Your task to perform on an android device: delete location history Image 0: 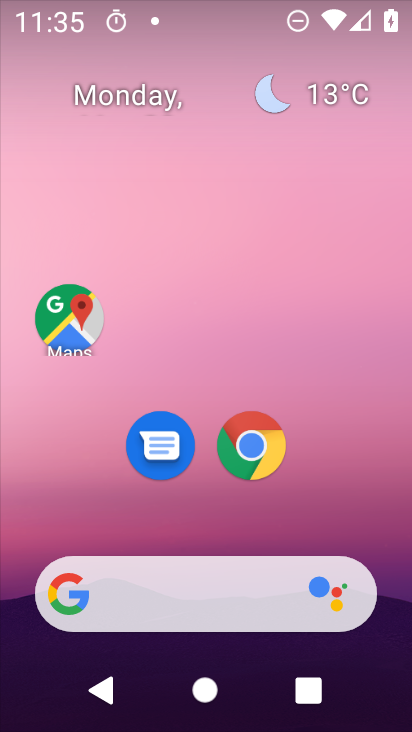
Step 0: drag from (183, 531) to (251, 53)
Your task to perform on an android device: delete location history Image 1: 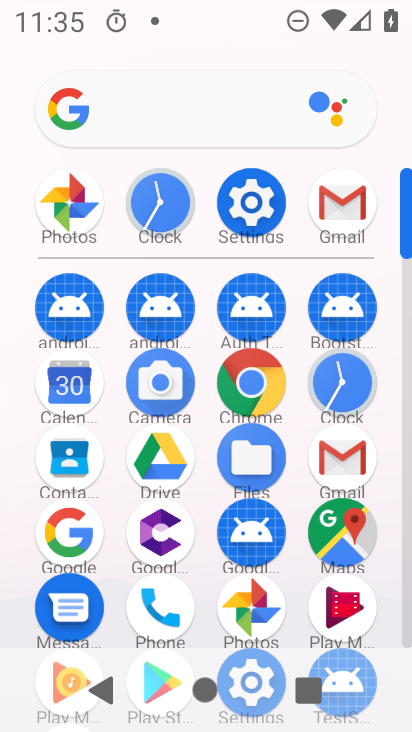
Step 1: click (332, 503)
Your task to perform on an android device: delete location history Image 2: 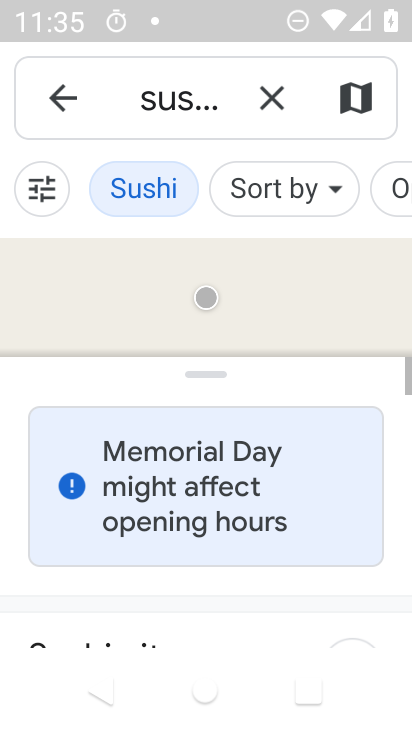
Step 2: click (61, 94)
Your task to perform on an android device: delete location history Image 3: 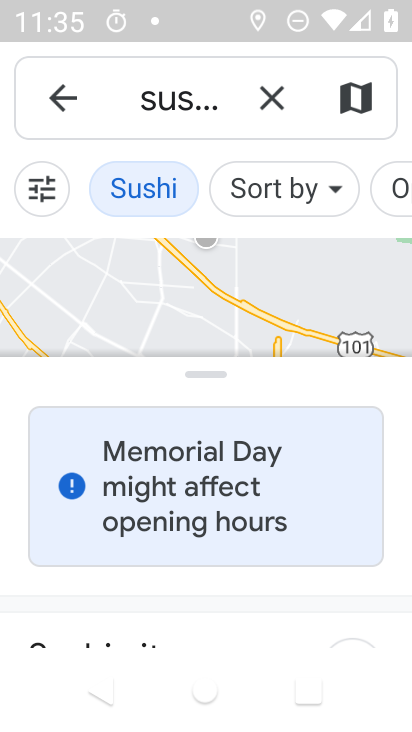
Step 3: click (60, 96)
Your task to perform on an android device: delete location history Image 4: 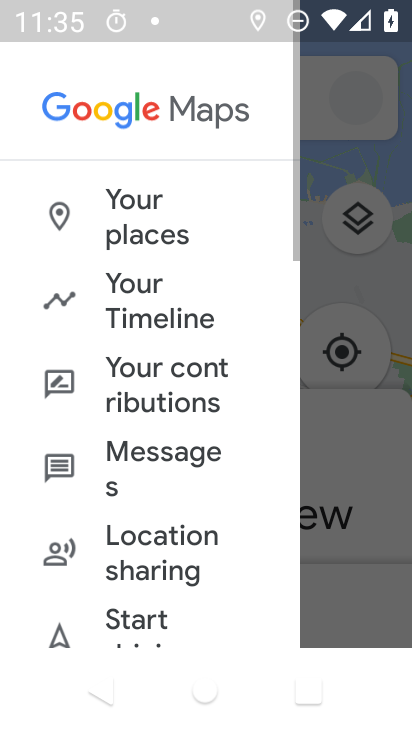
Step 4: click (56, 90)
Your task to perform on an android device: delete location history Image 5: 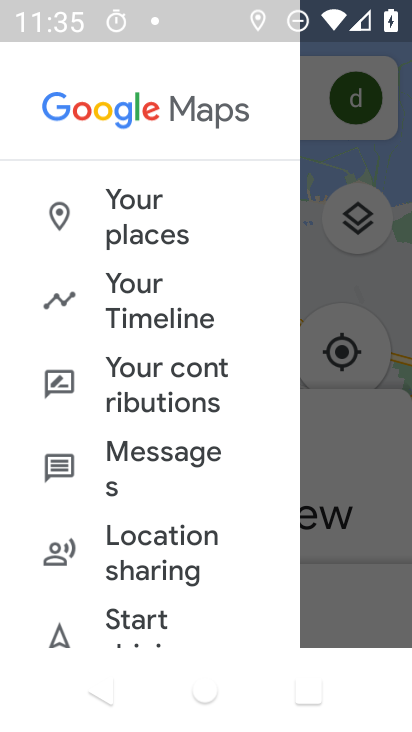
Step 5: click (137, 321)
Your task to perform on an android device: delete location history Image 6: 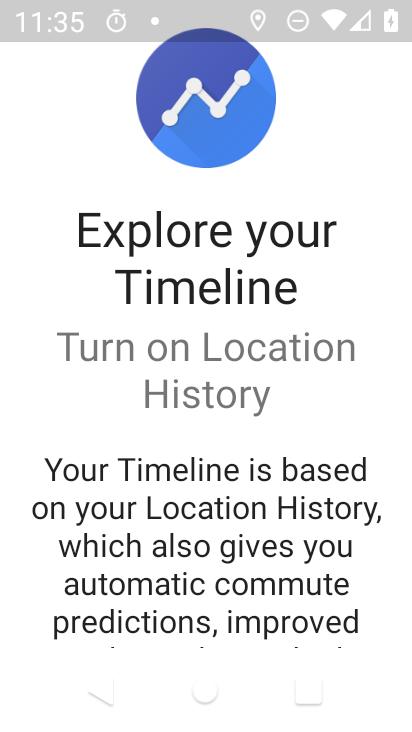
Step 6: drag from (200, 571) to (317, 29)
Your task to perform on an android device: delete location history Image 7: 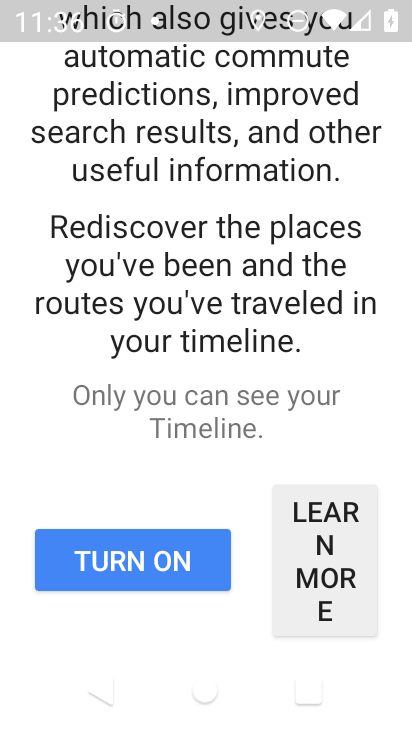
Step 7: drag from (226, 397) to (315, 27)
Your task to perform on an android device: delete location history Image 8: 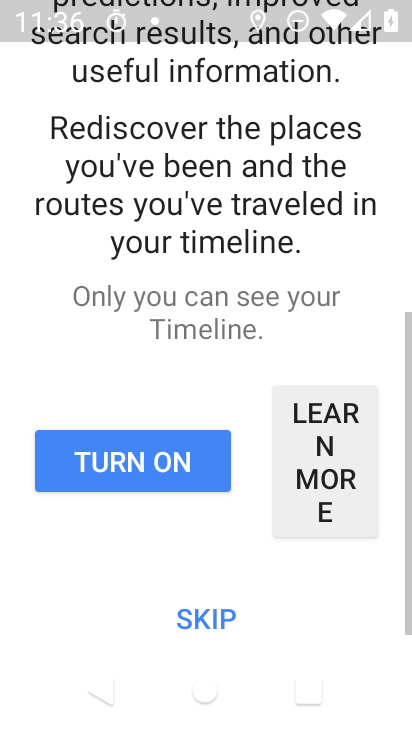
Step 8: click (199, 584)
Your task to perform on an android device: delete location history Image 9: 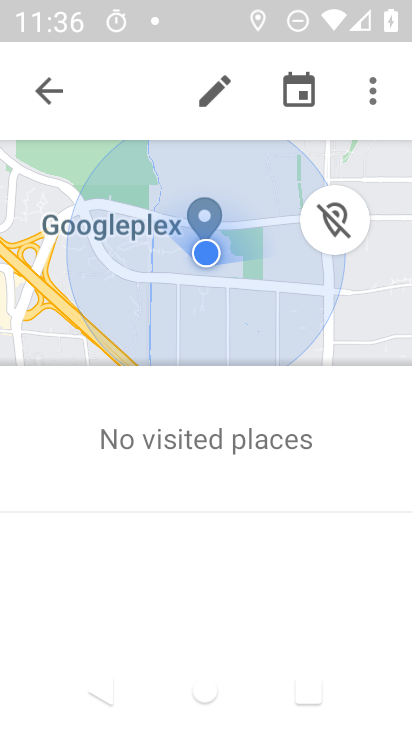
Step 9: click (379, 83)
Your task to perform on an android device: delete location history Image 10: 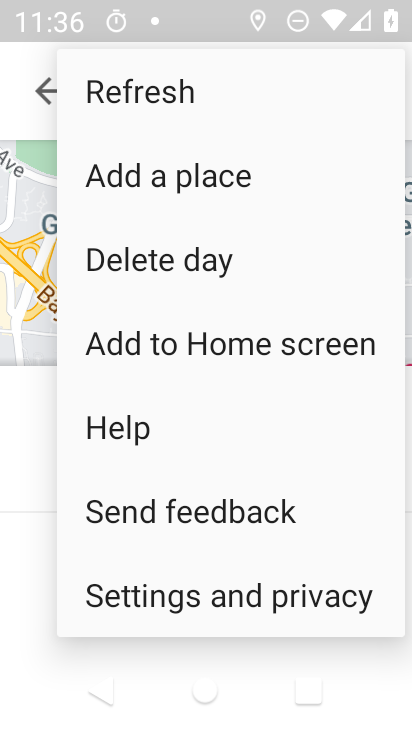
Step 10: click (243, 597)
Your task to perform on an android device: delete location history Image 11: 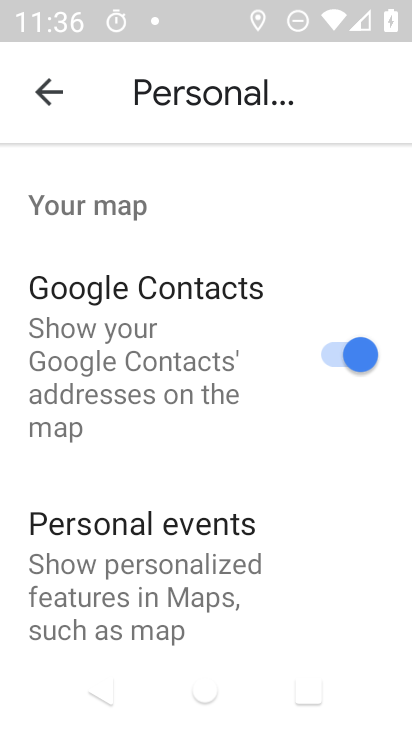
Step 11: drag from (200, 589) to (216, 42)
Your task to perform on an android device: delete location history Image 12: 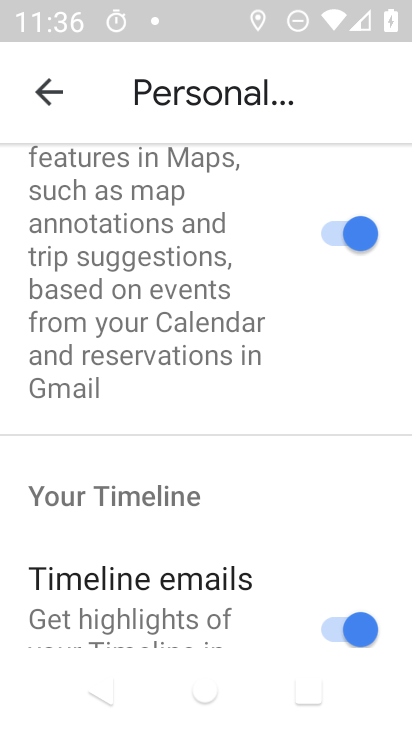
Step 12: drag from (116, 609) to (243, 11)
Your task to perform on an android device: delete location history Image 13: 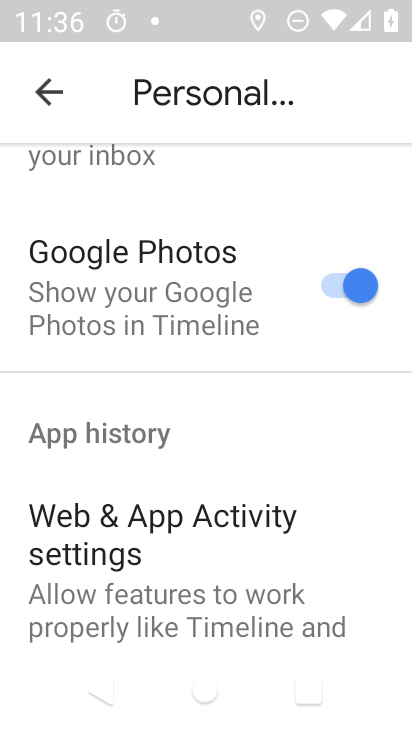
Step 13: drag from (174, 627) to (261, 24)
Your task to perform on an android device: delete location history Image 14: 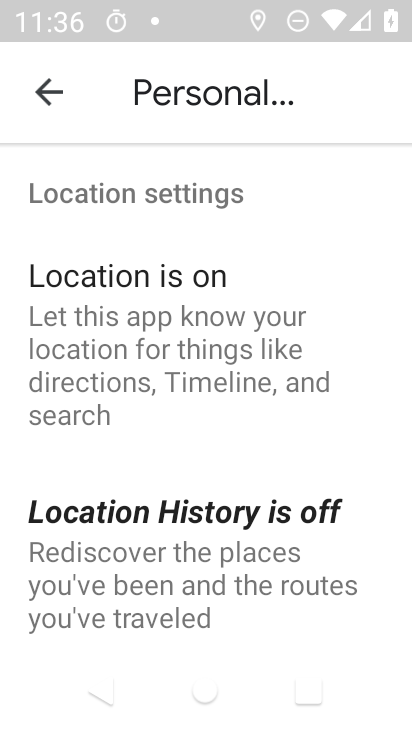
Step 14: drag from (197, 552) to (268, 73)
Your task to perform on an android device: delete location history Image 15: 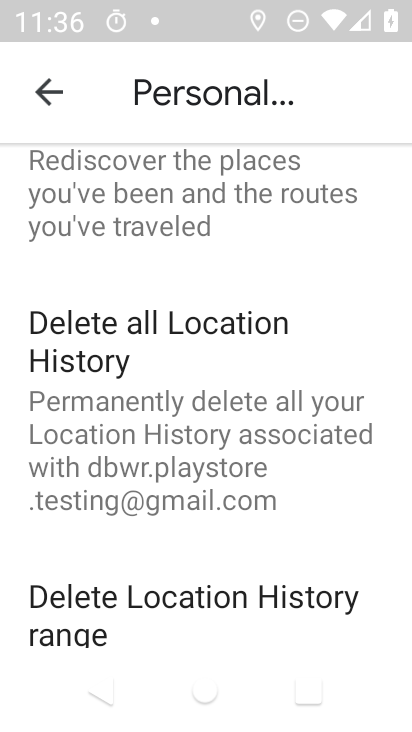
Step 15: click (191, 360)
Your task to perform on an android device: delete location history Image 16: 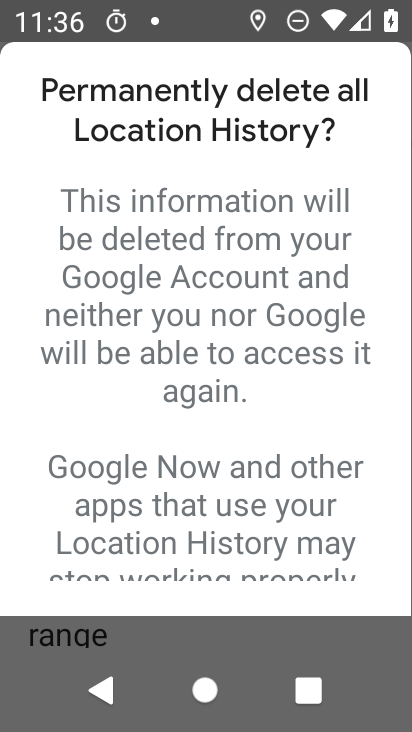
Step 16: press back button
Your task to perform on an android device: delete location history Image 17: 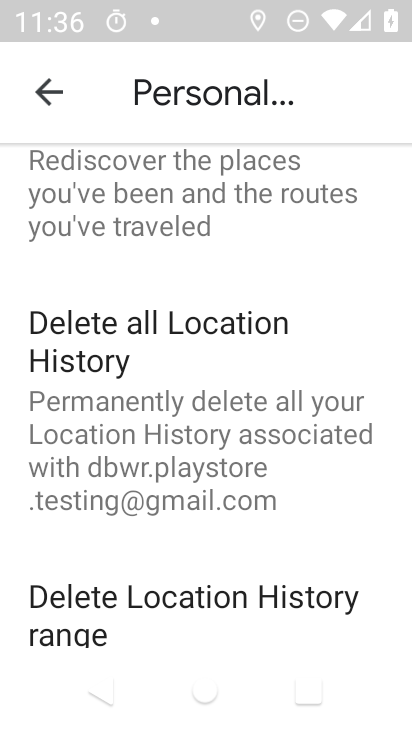
Step 17: drag from (241, 574) to (301, 390)
Your task to perform on an android device: delete location history Image 18: 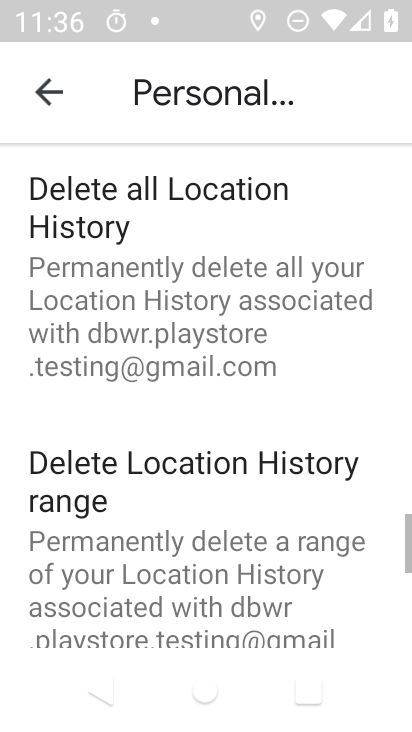
Step 18: click (165, 291)
Your task to perform on an android device: delete location history Image 19: 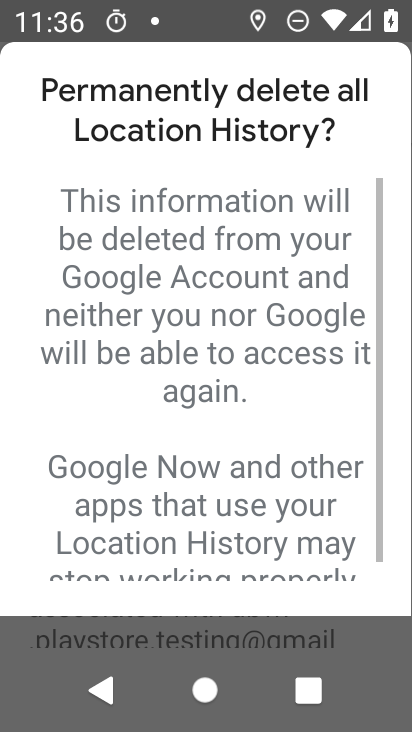
Step 19: task complete